Your task to perform on an android device: toggle data saver in the chrome app Image 0: 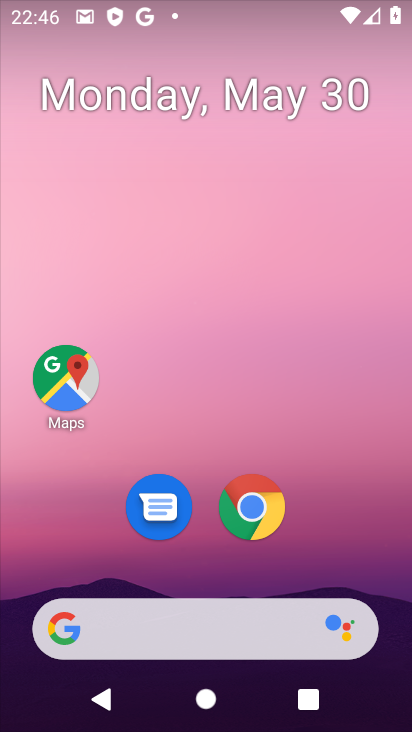
Step 0: drag from (362, 577) to (386, 291)
Your task to perform on an android device: toggle data saver in the chrome app Image 1: 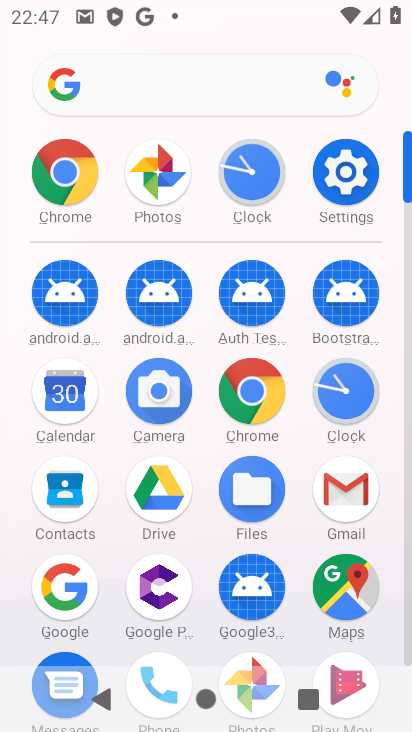
Step 1: click (258, 398)
Your task to perform on an android device: toggle data saver in the chrome app Image 2: 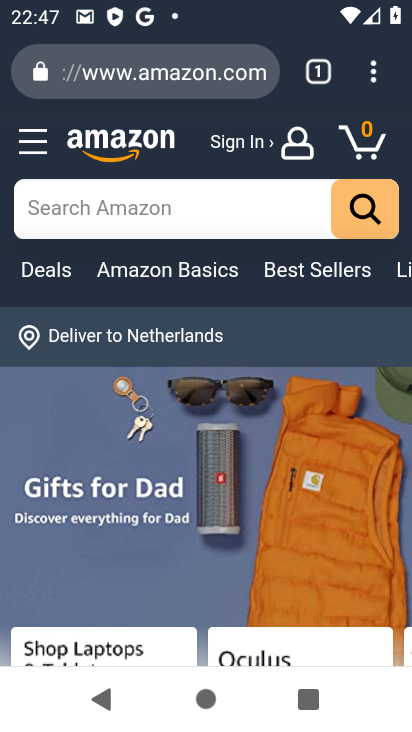
Step 2: click (376, 79)
Your task to perform on an android device: toggle data saver in the chrome app Image 3: 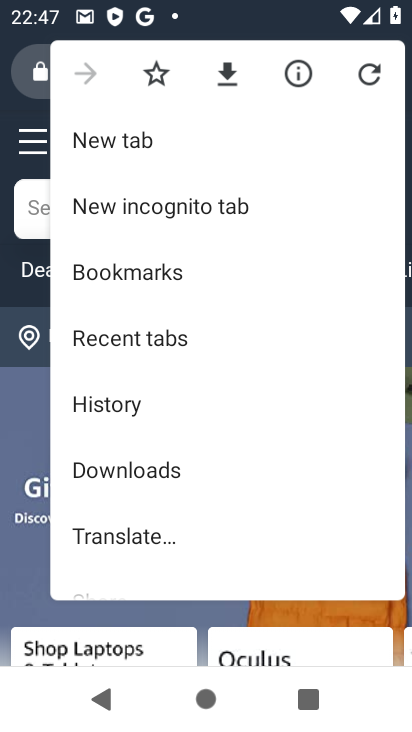
Step 3: drag from (283, 467) to (294, 271)
Your task to perform on an android device: toggle data saver in the chrome app Image 4: 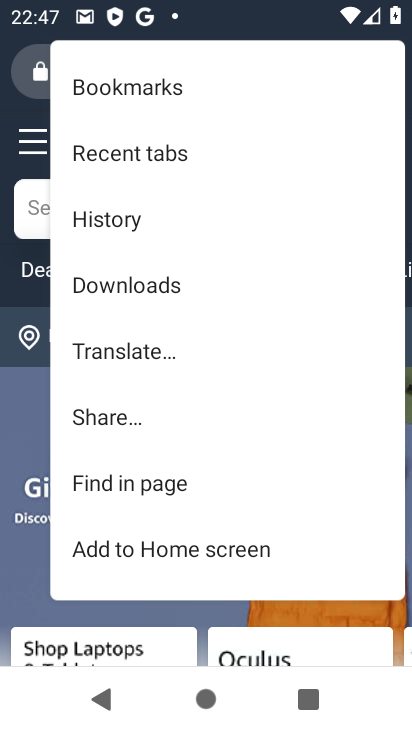
Step 4: drag from (305, 462) to (301, 264)
Your task to perform on an android device: toggle data saver in the chrome app Image 5: 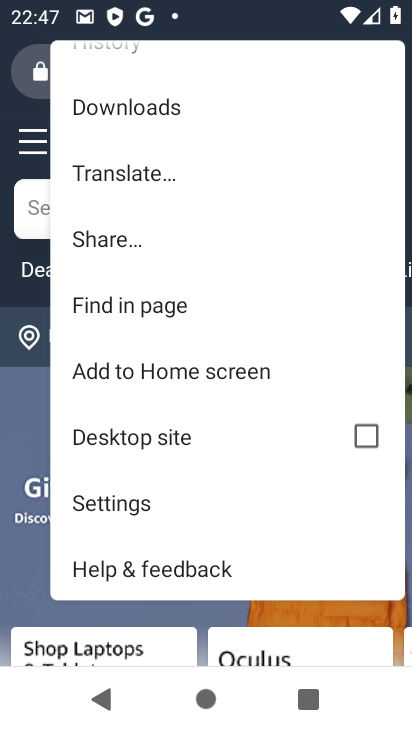
Step 5: click (149, 513)
Your task to perform on an android device: toggle data saver in the chrome app Image 6: 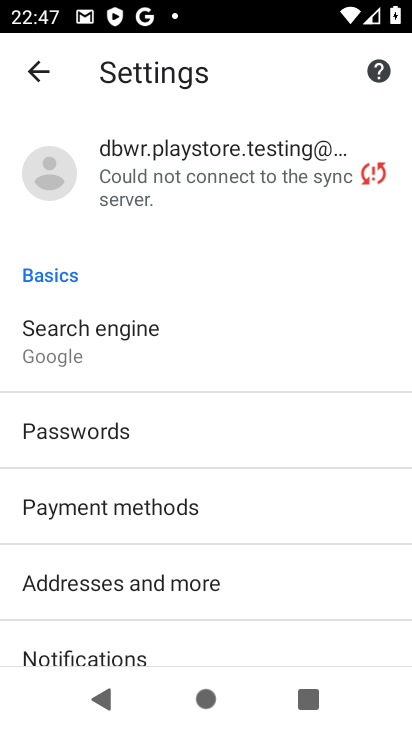
Step 6: drag from (278, 547) to (282, 380)
Your task to perform on an android device: toggle data saver in the chrome app Image 7: 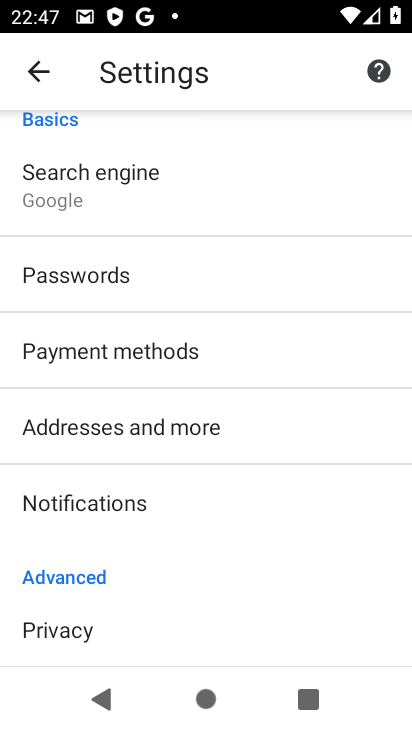
Step 7: drag from (272, 532) to (269, 346)
Your task to perform on an android device: toggle data saver in the chrome app Image 8: 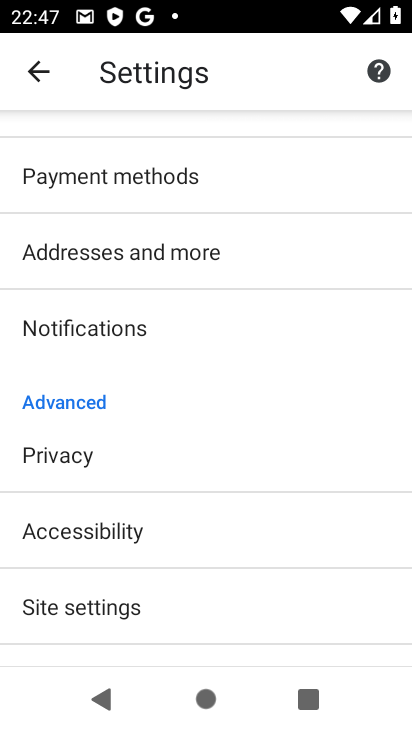
Step 8: drag from (248, 587) to (244, 403)
Your task to perform on an android device: toggle data saver in the chrome app Image 9: 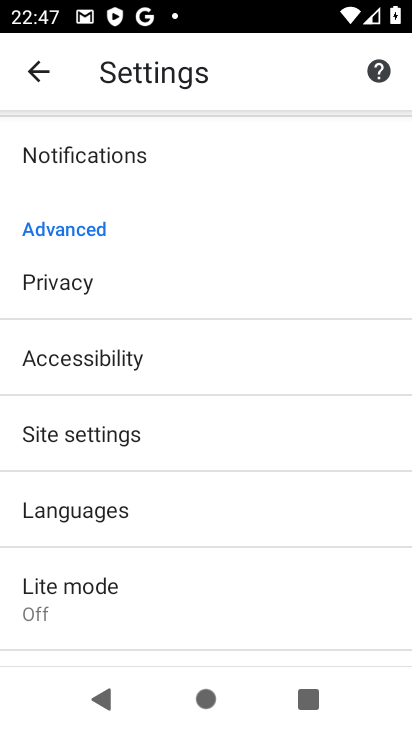
Step 9: drag from (219, 603) to (213, 438)
Your task to perform on an android device: toggle data saver in the chrome app Image 10: 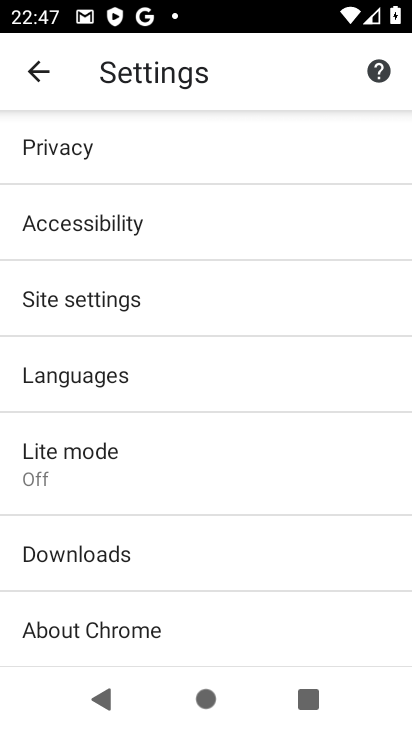
Step 10: click (177, 478)
Your task to perform on an android device: toggle data saver in the chrome app Image 11: 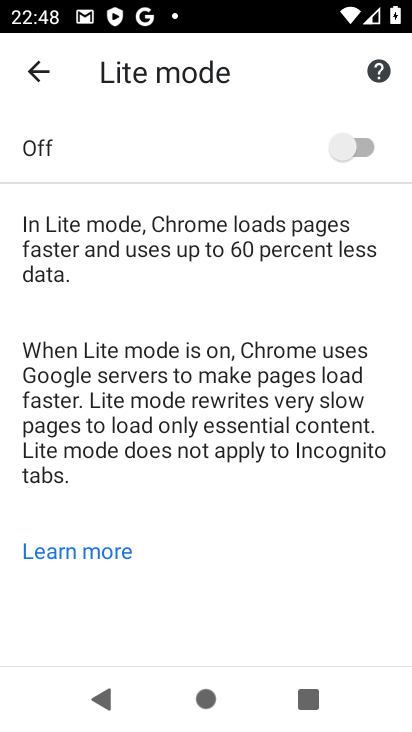
Step 11: click (351, 147)
Your task to perform on an android device: toggle data saver in the chrome app Image 12: 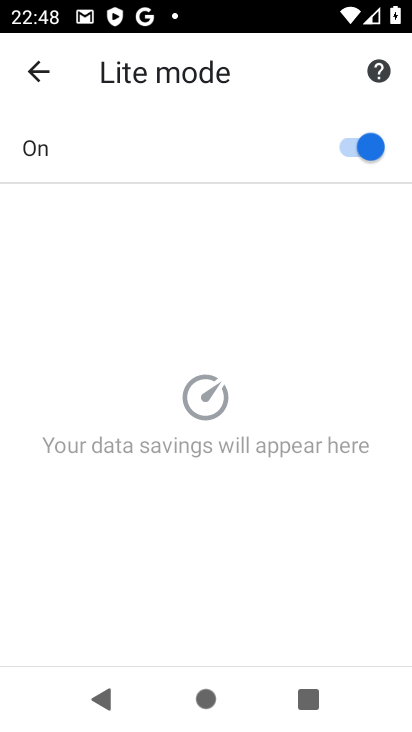
Step 12: task complete